Your task to perform on an android device: When is my next appointment? Image 0: 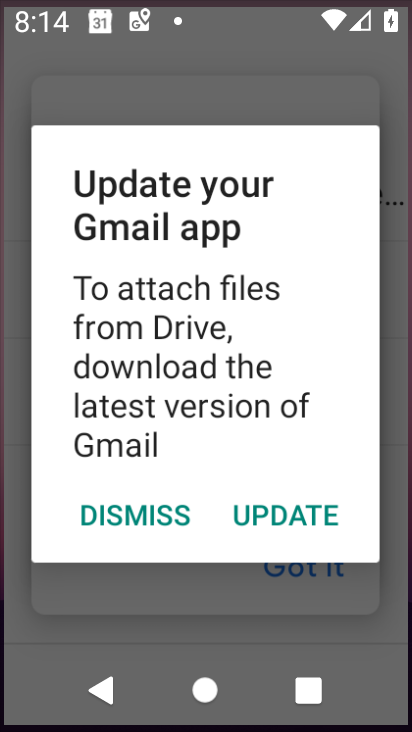
Step 0: drag from (39, 586) to (293, 187)
Your task to perform on an android device: When is my next appointment? Image 1: 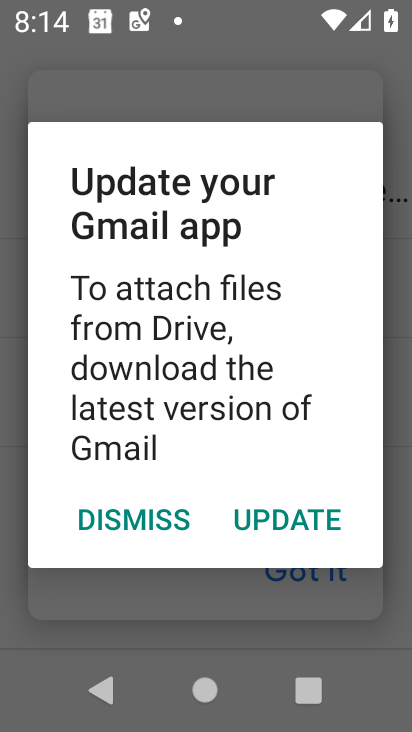
Step 1: press back button
Your task to perform on an android device: When is my next appointment? Image 2: 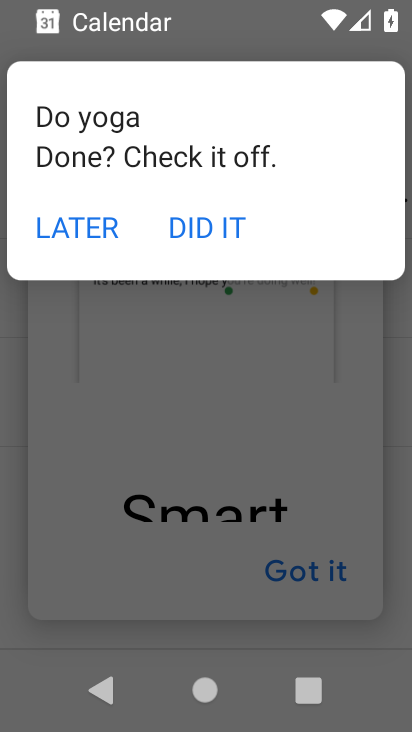
Step 2: press home button
Your task to perform on an android device: When is my next appointment? Image 3: 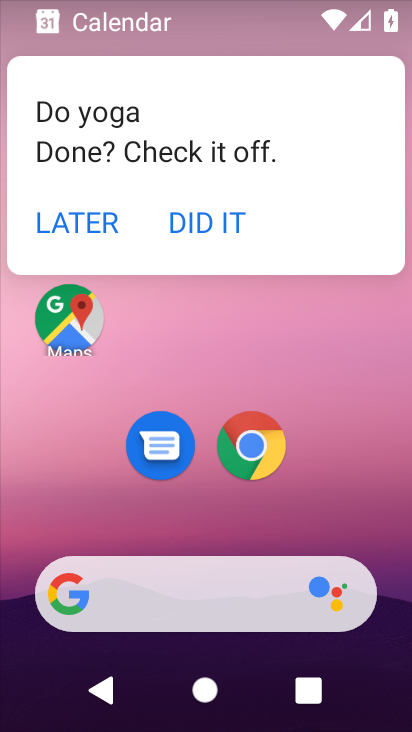
Step 3: click (148, 335)
Your task to perform on an android device: When is my next appointment? Image 4: 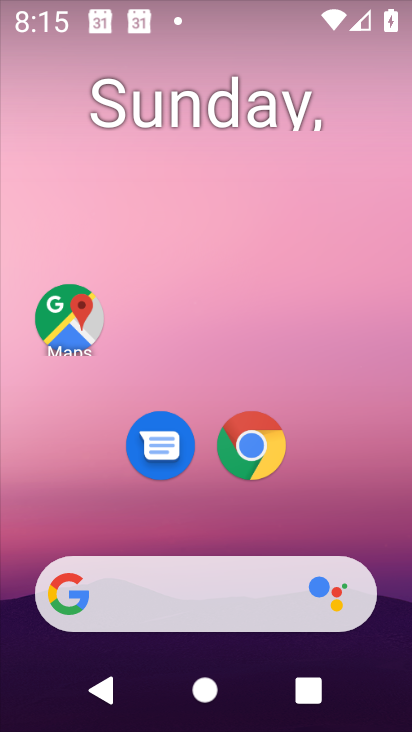
Step 4: drag from (3, 605) to (269, 93)
Your task to perform on an android device: When is my next appointment? Image 5: 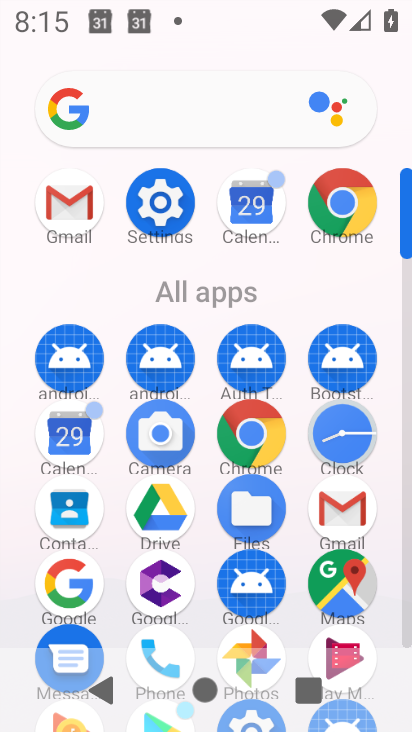
Step 5: click (53, 432)
Your task to perform on an android device: When is my next appointment? Image 6: 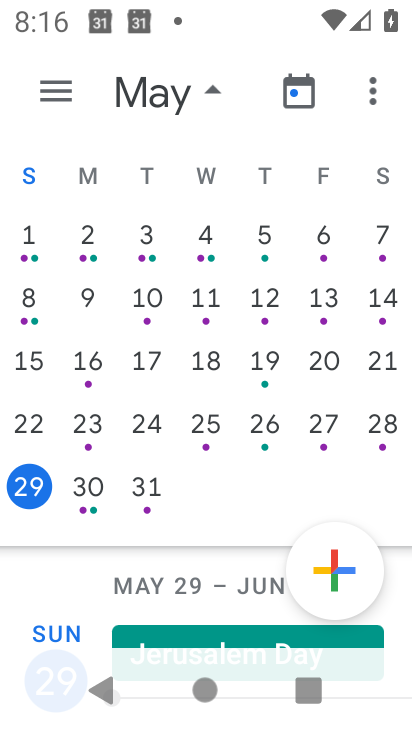
Step 6: task complete